Your task to perform on an android device: toggle location history Image 0: 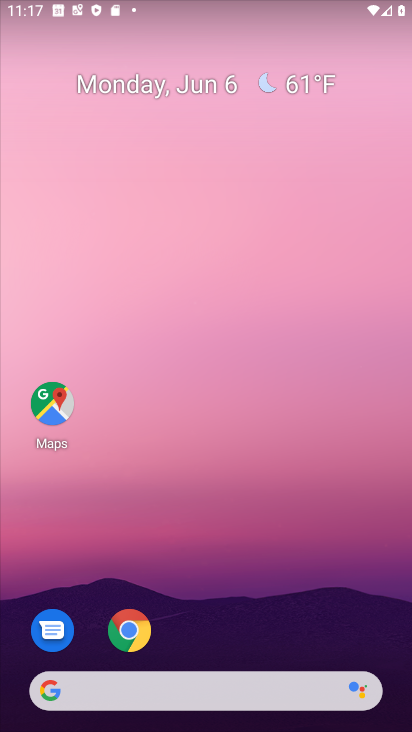
Step 0: drag from (290, 598) to (296, 239)
Your task to perform on an android device: toggle location history Image 1: 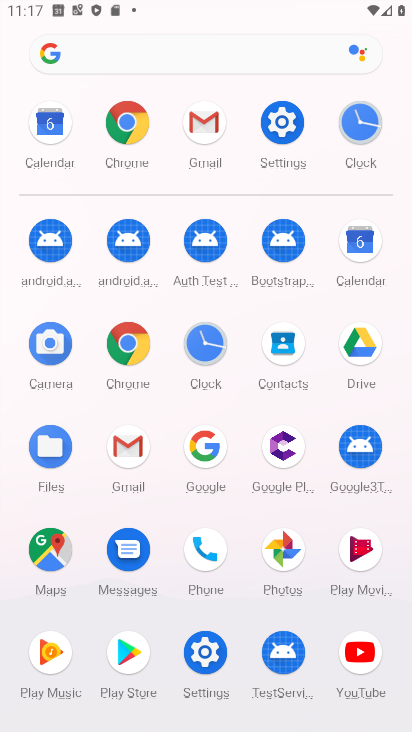
Step 1: click (126, 340)
Your task to perform on an android device: toggle location history Image 2: 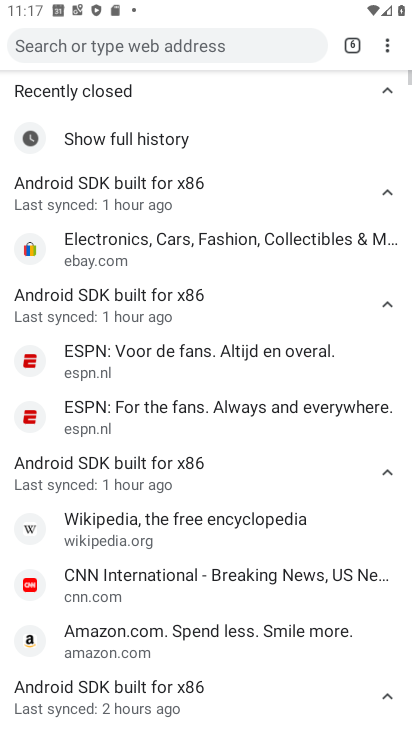
Step 2: drag from (378, 48) to (59, 469)
Your task to perform on an android device: toggle location history Image 3: 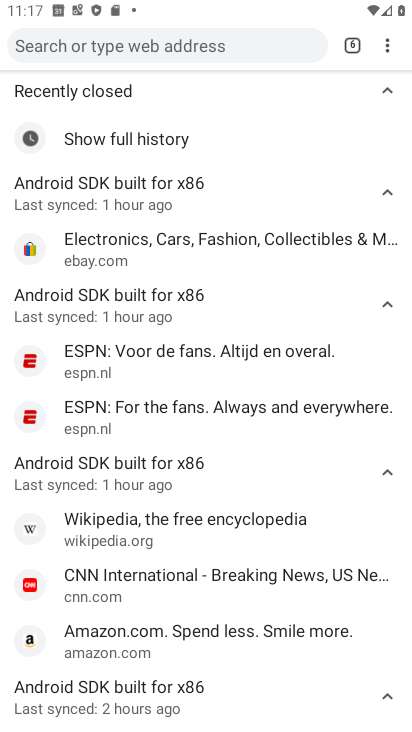
Step 3: press home button
Your task to perform on an android device: toggle location history Image 4: 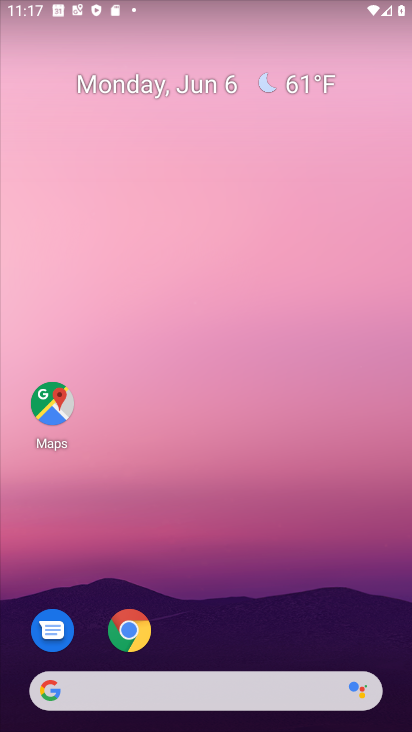
Step 4: drag from (228, 609) to (246, 221)
Your task to perform on an android device: toggle location history Image 5: 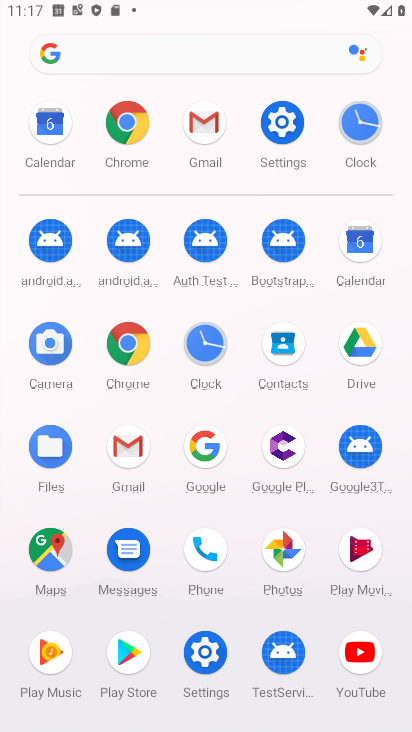
Step 5: click (40, 550)
Your task to perform on an android device: toggle location history Image 6: 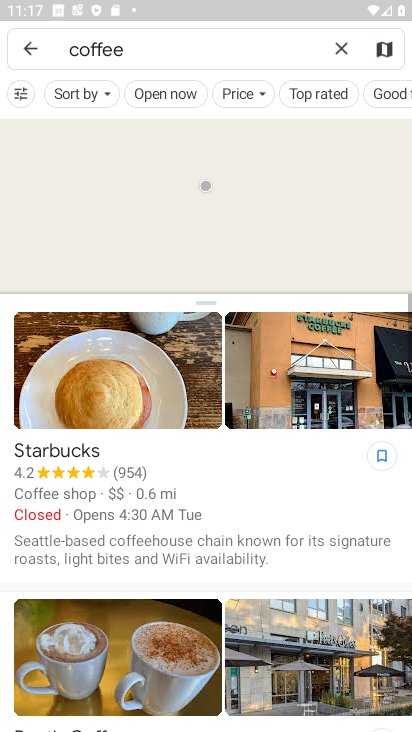
Step 6: click (38, 52)
Your task to perform on an android device: toggle location history Image 7: 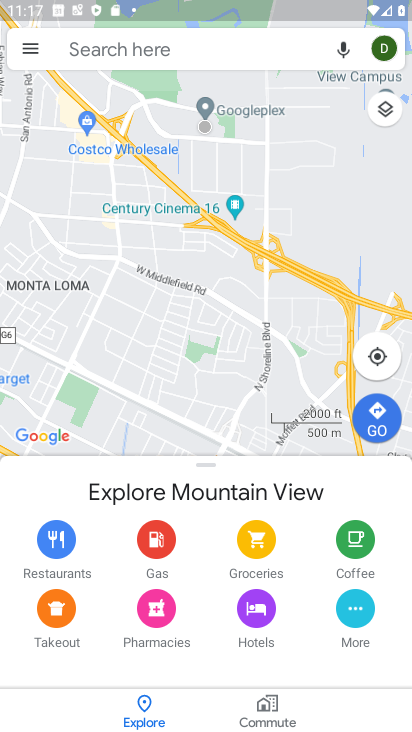
Step 7: click (38, 52)
Your task to perform on an android device: toggle location history Image 8: 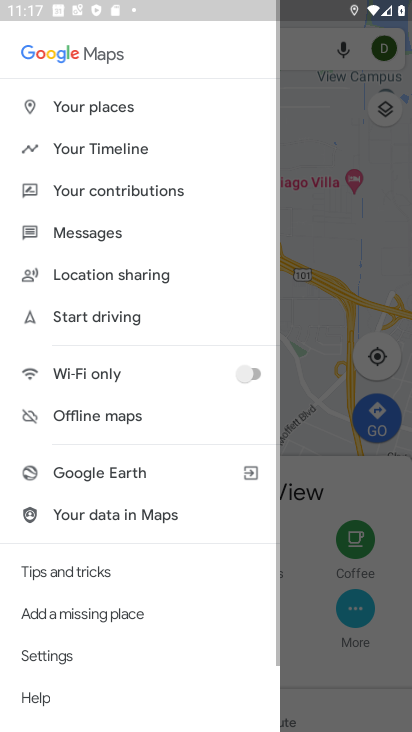
Step 8: click (149, 144)
Your task to perform on an android device: toggle location history Image 9: 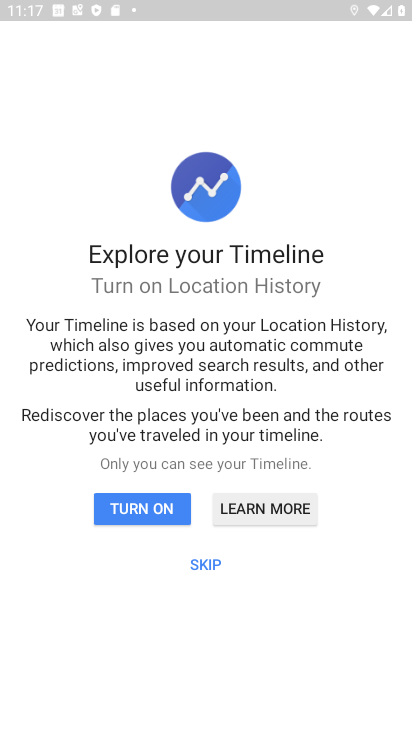
Step 9: click (198, 574)
Your task to perform on an android device: toggle location history Image 10: 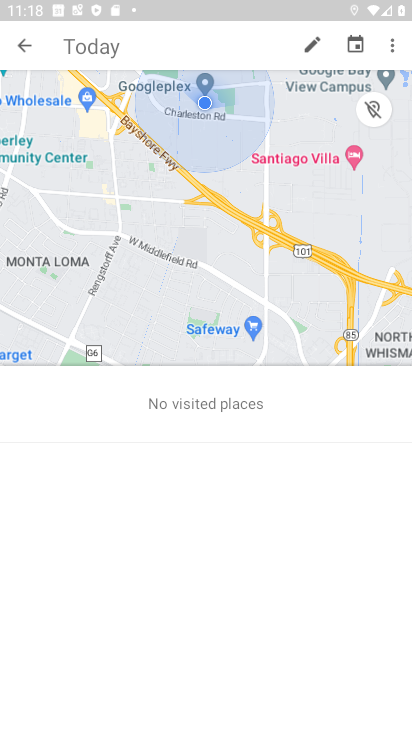
Step 10: drag from (403, 51) to (257, 296)
Your task to perform on an android device: toggle location history Image 11: 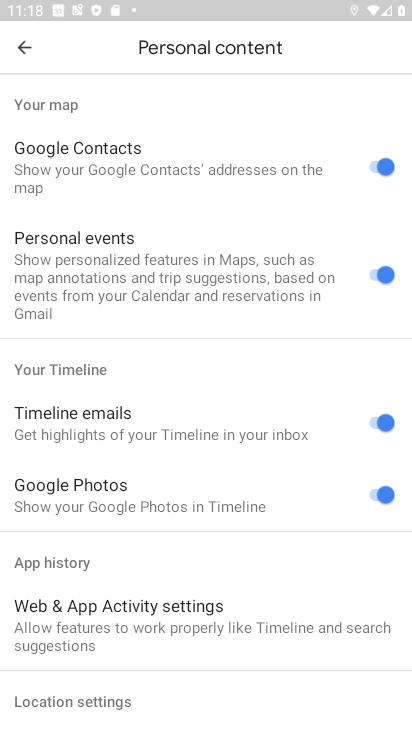
Step 11: drag from (187, 506) to (213, 216)
Your task to perform on an android device: toggle location history Image 12: 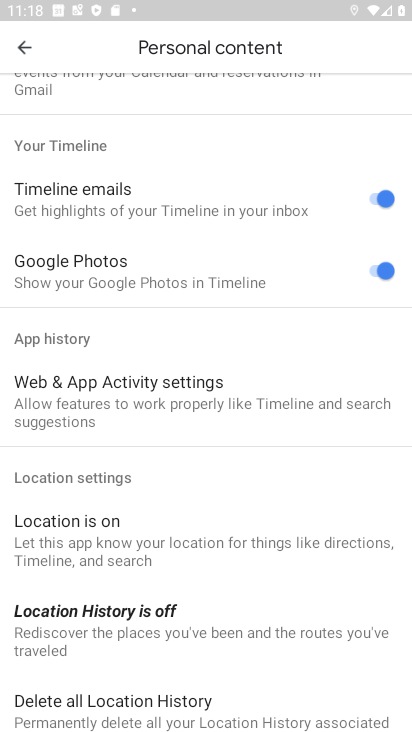
Step 12: drag from (181, 588) to (203, 414)
Your task to perform on an android device: toggle location history Image 13: 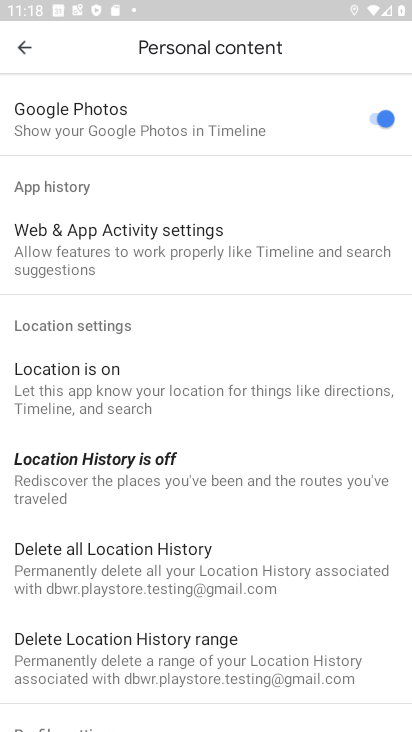
Step 13: click (135, 471)
Your task to perform on an android device: toggle location history Image 14: 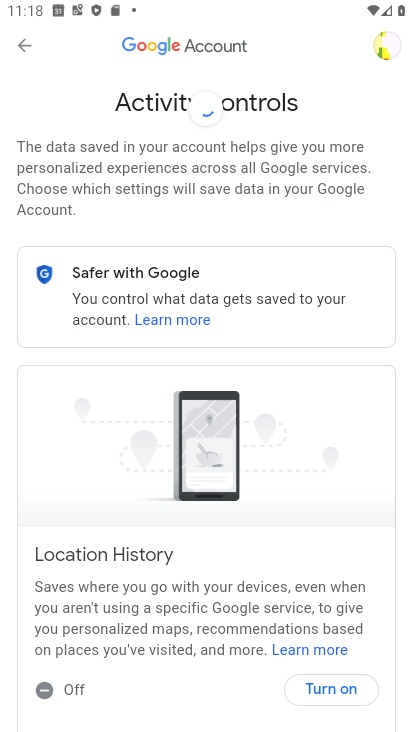
Step 14: drag from (279, 590) to (331, 320)
Your task to perform on an android device: toggle location history Image 15: 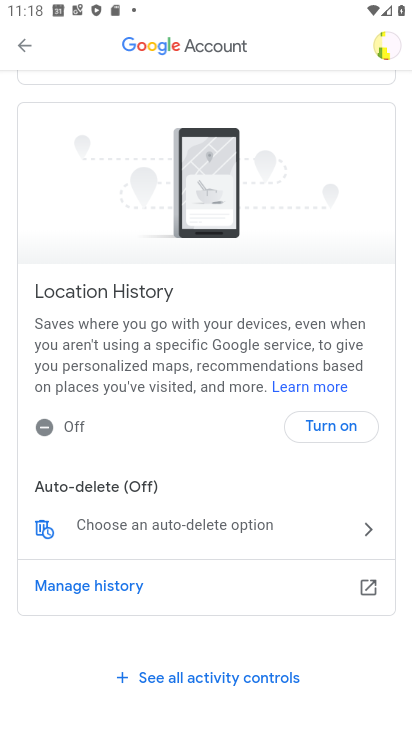
Step 15: click (333, 426)
Your task to perform on an android device: toggle location history Image 16: 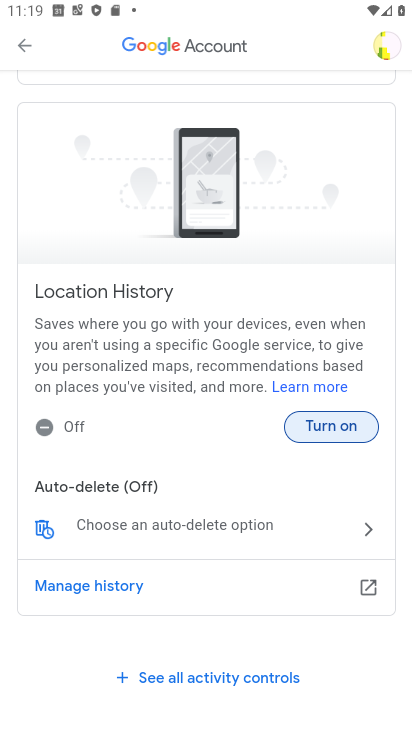
Step 16: task complete